Your task to perform on an android device: allow cookies in the chrome app Image 0: 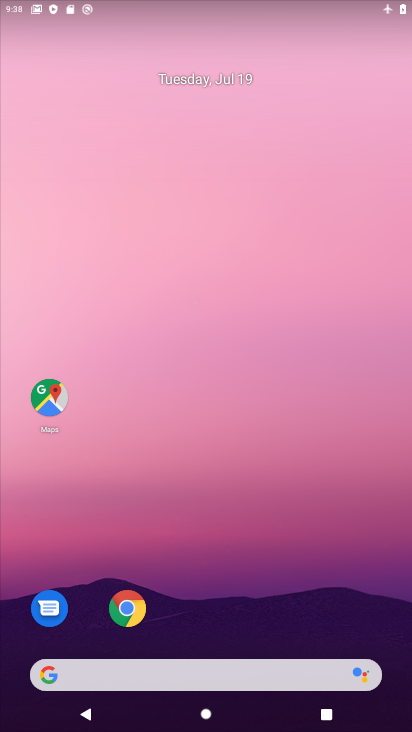
Step 0: drag from (301, 639) to (268, 46)
Your task to perform on an android device: allow cookies in the chrome app Image 1: 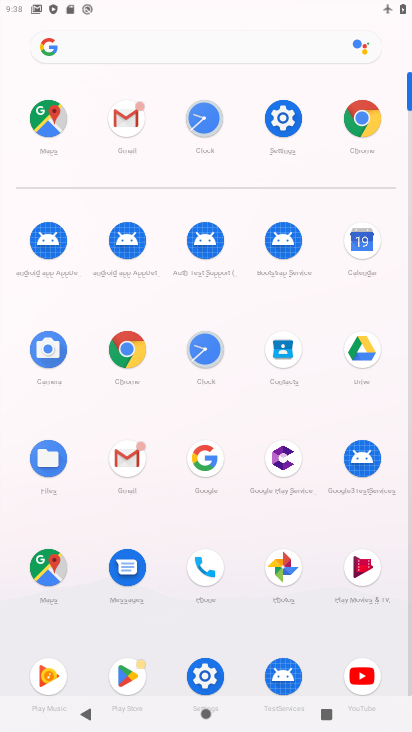
Step 1: click (130, 353)
Your task to perform on an android device: allow cookies in the chrome app Image 2: 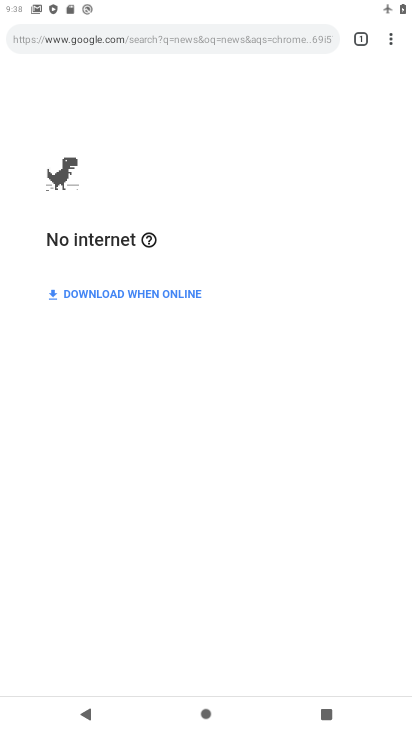
Step 2: drag from (391, 38) to (268, 221)
Your task to perform on an android device: allow cookies in the chrome app Image 3: 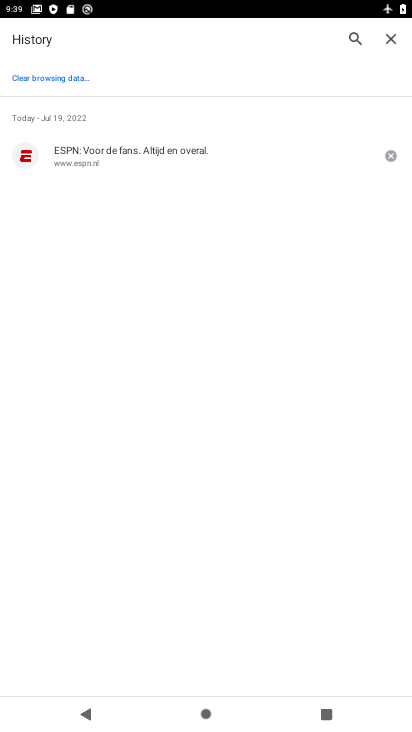
Step 3: click (60, 76)
Your task to perform on an android device: allow cookies in the chrome app Image 4: 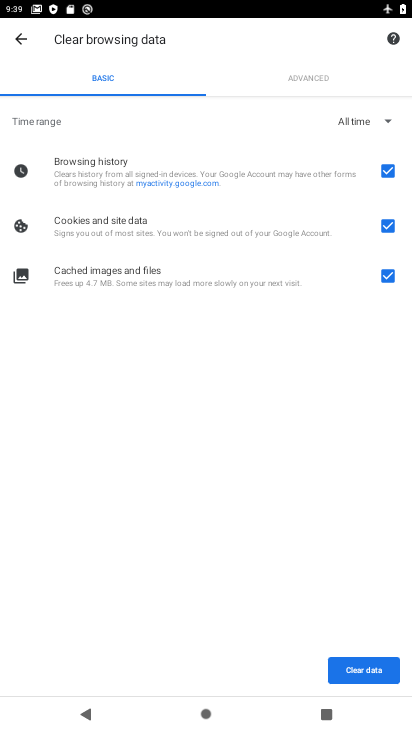
Step 4: click (376, 675)
Your task to perform on an android device: allow cookies in the chrome app Image 5: 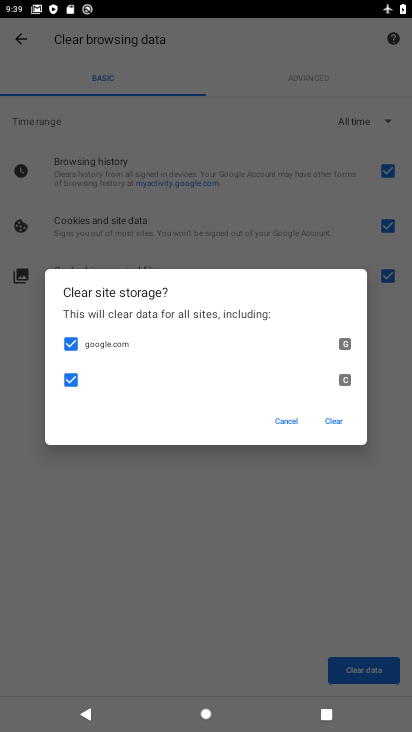
Step 5: click (346, 419)
Your task to perform on an android device: allow cookies in the chrome app Image 6: 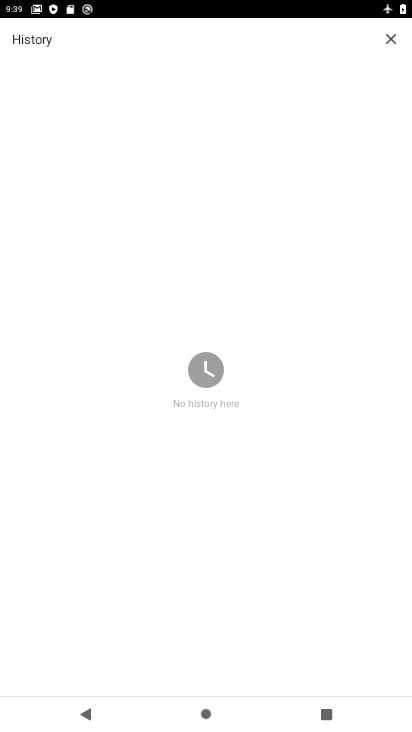
Step 6: task complete